Your task to perform on an android device: open wifi settings Image 0: 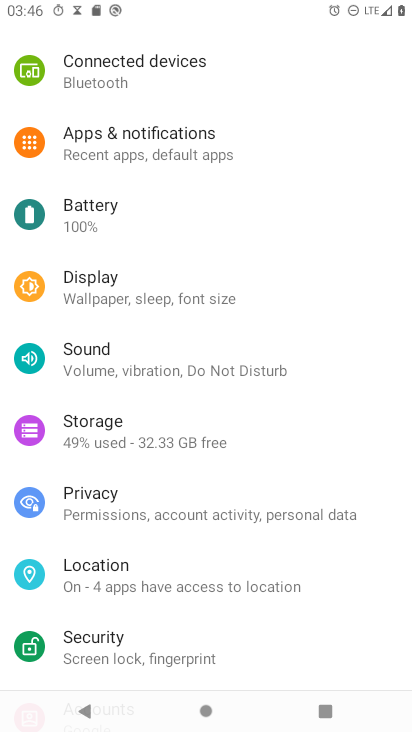
Step 0: drag from (101, 82) to (131, 448)
Your task to perform on an android device: open wifi settings Image 1: 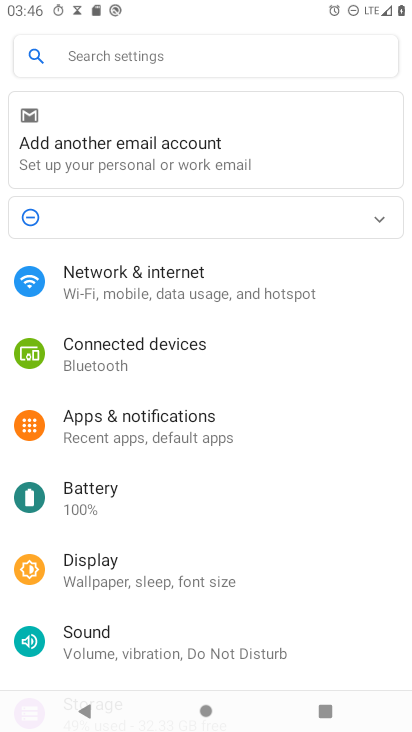
Step 1: click (121, 302)
Your task to perform on an android device: open wifi settings Image 2: 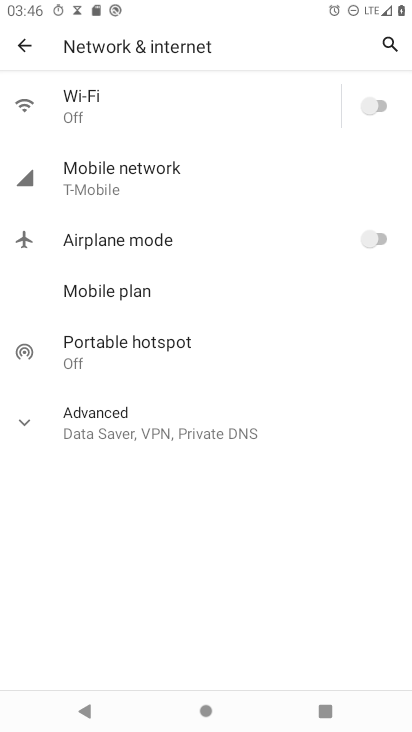
Step 2: click (72, 123)
Your task to perform on an android device: open wifi settings Image 3: 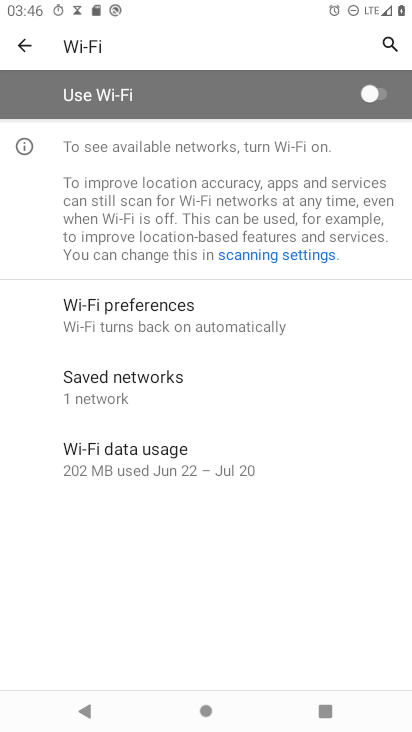
Step 3: task complete